Your task to perform on an android device: View the shopping cart on costco.com. Search for "usb-a" on costco.com, select the first entry, add it to the cart, then select checkout. Image 0: 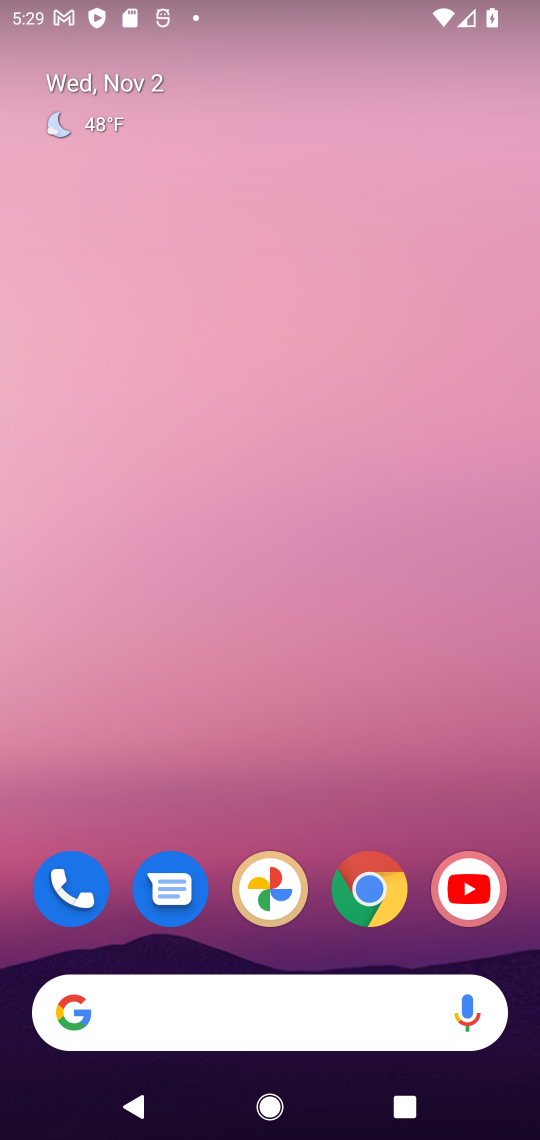
Step 0: click (372, 892)
Your task to perform on an android device: View the shopping cart on costco.com. Search for "usb-a" on costco.com, select the first entry, add it to the cart, then select checkout. Image 1: 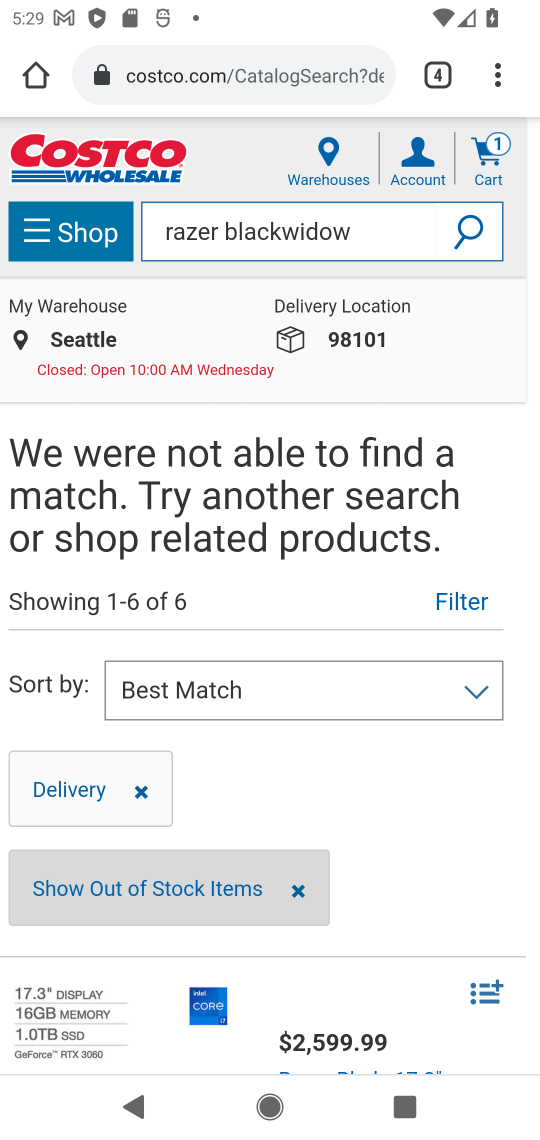
Step 1: click (483, 169)
Your task to perform on an android device: View the shopping cart on costco.com. Search for "usb-a" on costco.com, select the first entry, add it to the cart, then select checkout. Image 2: 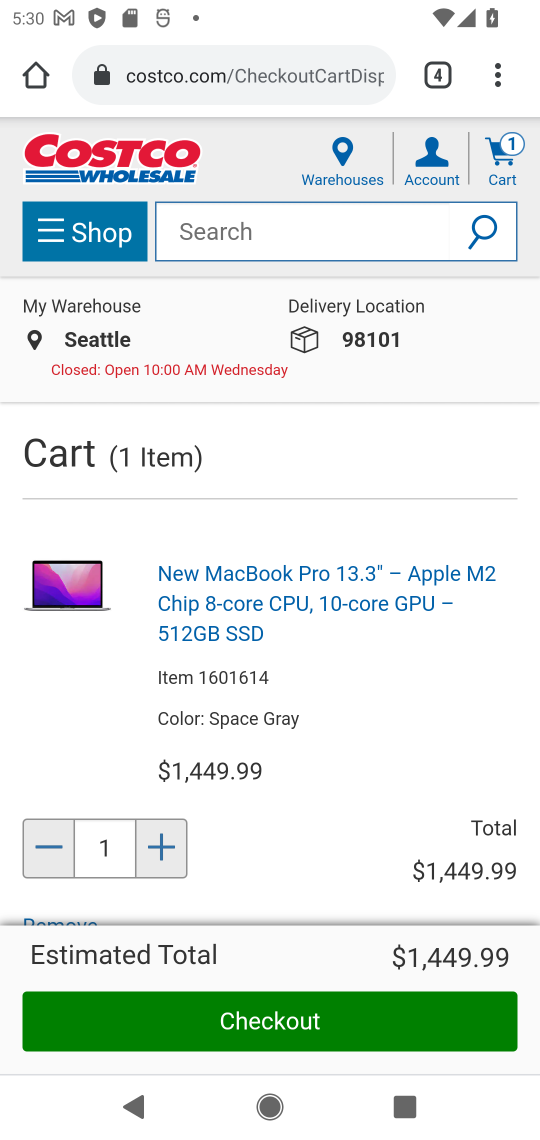
Step 2: click (278, 225)
Your task to perform on an android device: View the shopping cart on costco.com. Search for "usb-a" on costco.com, select the first entry, add it to the cart, then select checkout. Image 3: 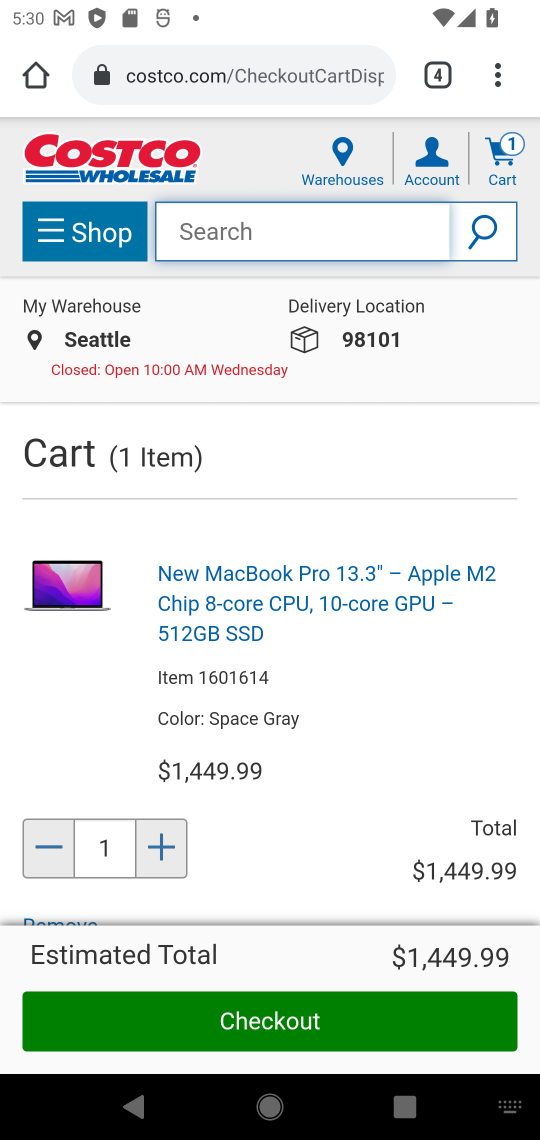
Step 3: type "usb-a"
Your task to perform on an android device: View the shopping cart on costco.com. Search for "usb-a" on costco.com, select the first entry, add it to the cart, then select checkout. Image 4: 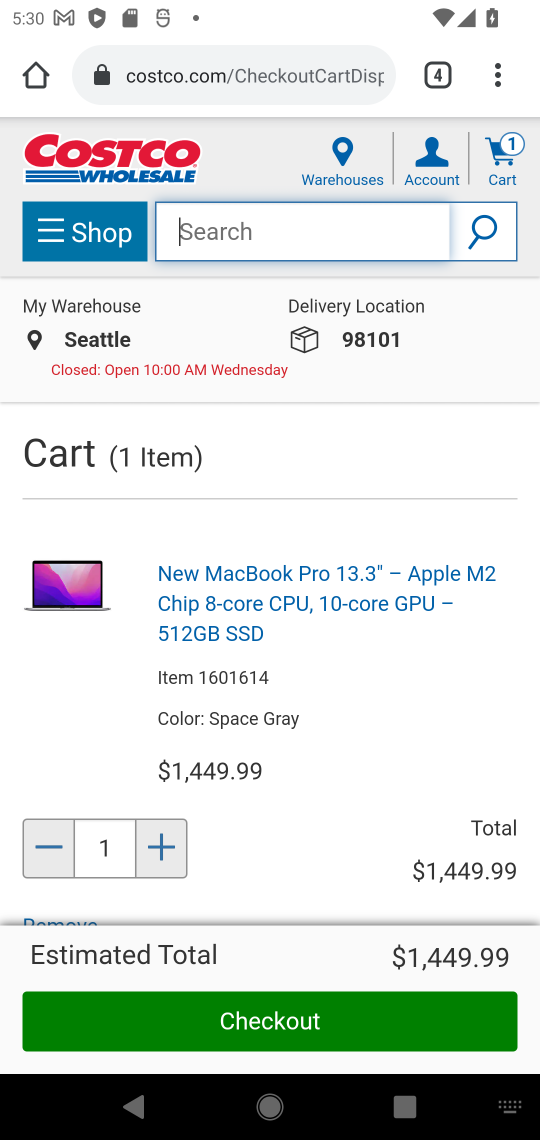
Step 4: press enter
Your task to perform on an android device: View the shopping cart on costco.com. Search for "usb-a" on costco.com, select the first entry, add it to the cart, then select checkout. Image 5: 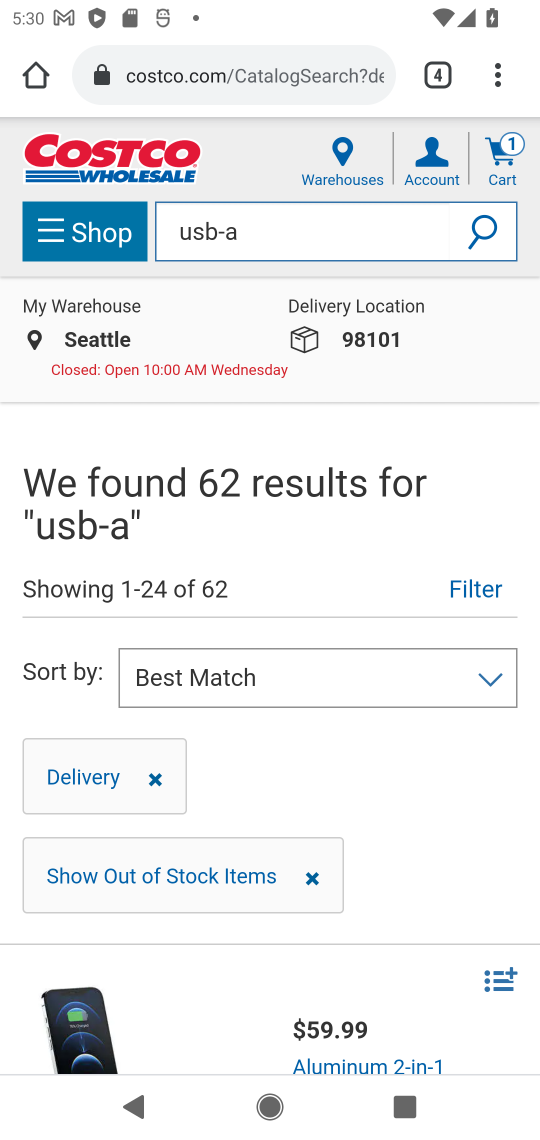
Step 5: drag from (302, 825) to (443, 335)
Your task to perform on an android device: View the shopping cart on costco.com. Search for "usb-a" on costco.com, select the first entry, add it to the cart, then select checkout. Image 6: 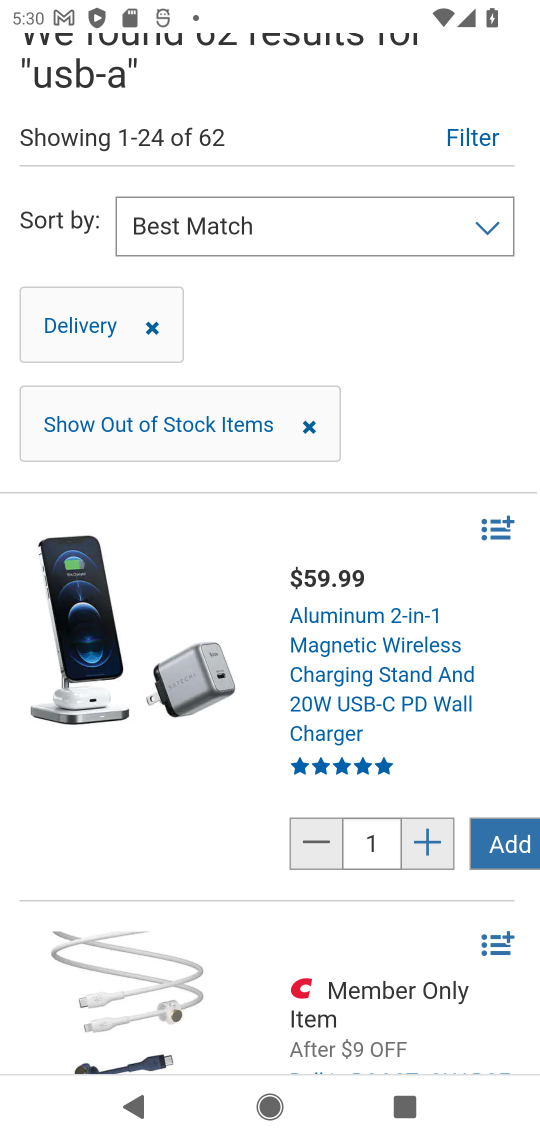
Step 6: drag from (401, 344) to (375, 232)
Your task to perform on an android device: View the shopping cart on costco.com. Search for "usb-a" on costco.com, select the first entry, add it to the cart, then select checkout. Image 7: 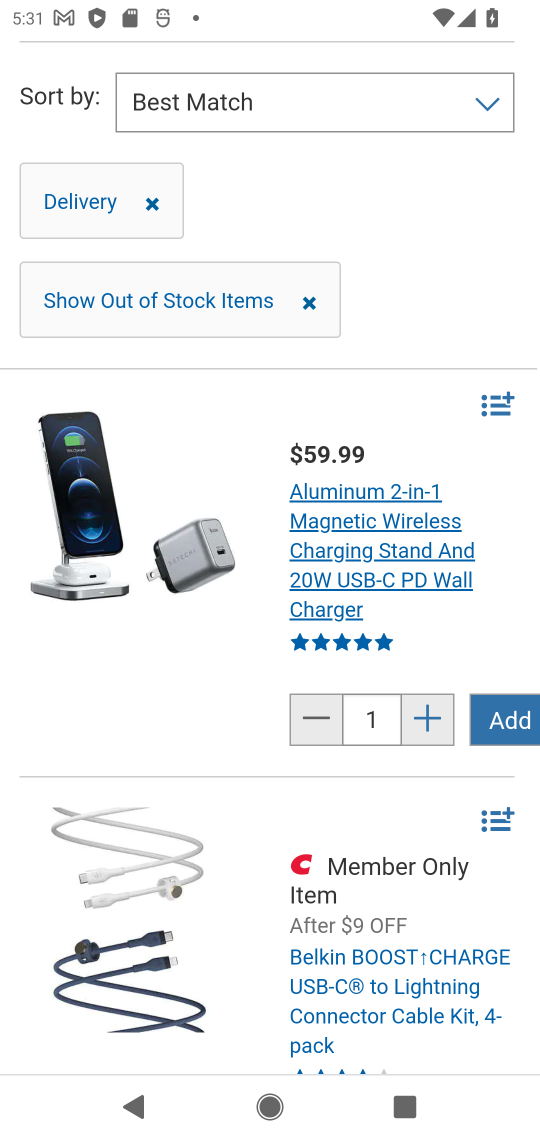
Step 7: click (510, 722)
Your task to perform on an android device: View the shopping cart on costco.com. Search for "usb-a" on costco.com, select the first entry, add it to the cart, then select checkout. Image 8: 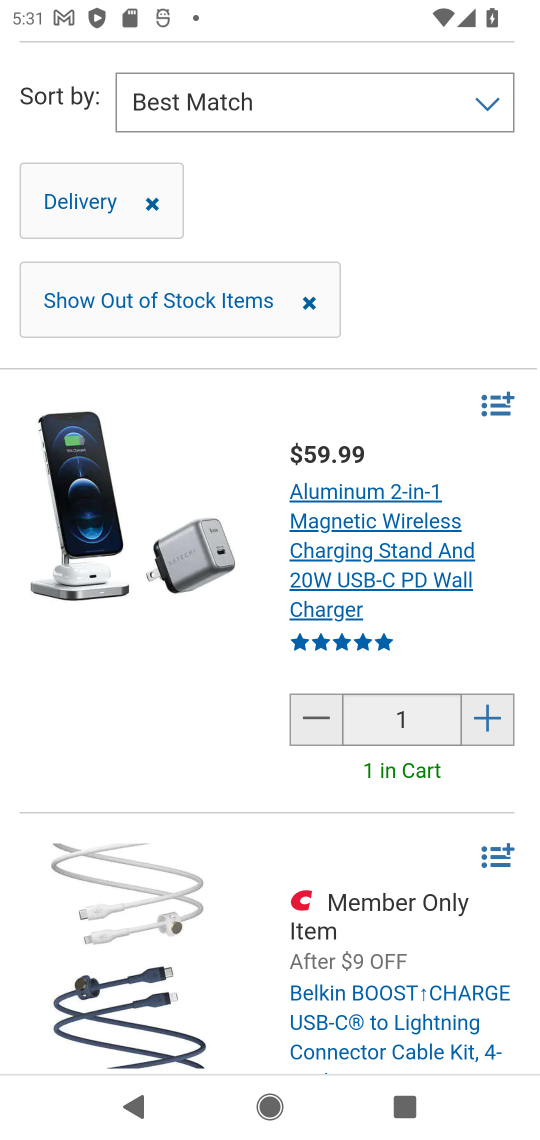
Step 8: drag from (365, 237) to (403, 778)
Your task to perform on an android device: View the shopping cart on costco.com. Search for "usb-a" on costco.com, select the first entry, add it to the cart, then select checkout. Image 9: 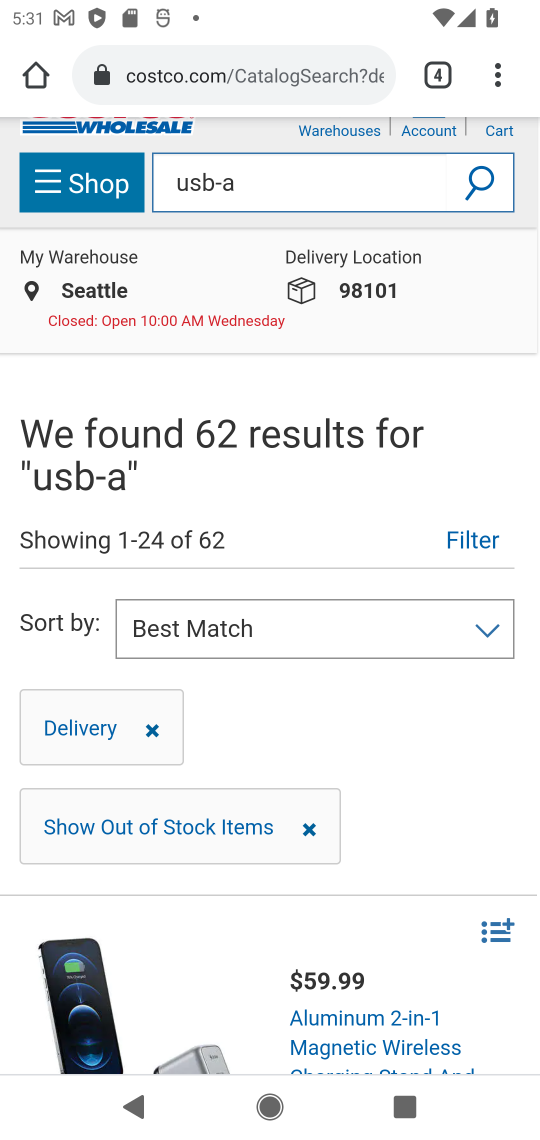
Step 9: drag from (403, 224) to (443, 557)
Your task to perform on an android device: View the shopping cart on costco.com. Search for "usb-a" on costco.com, select the first entry, add it to the cart, then select checkout. Image 10: 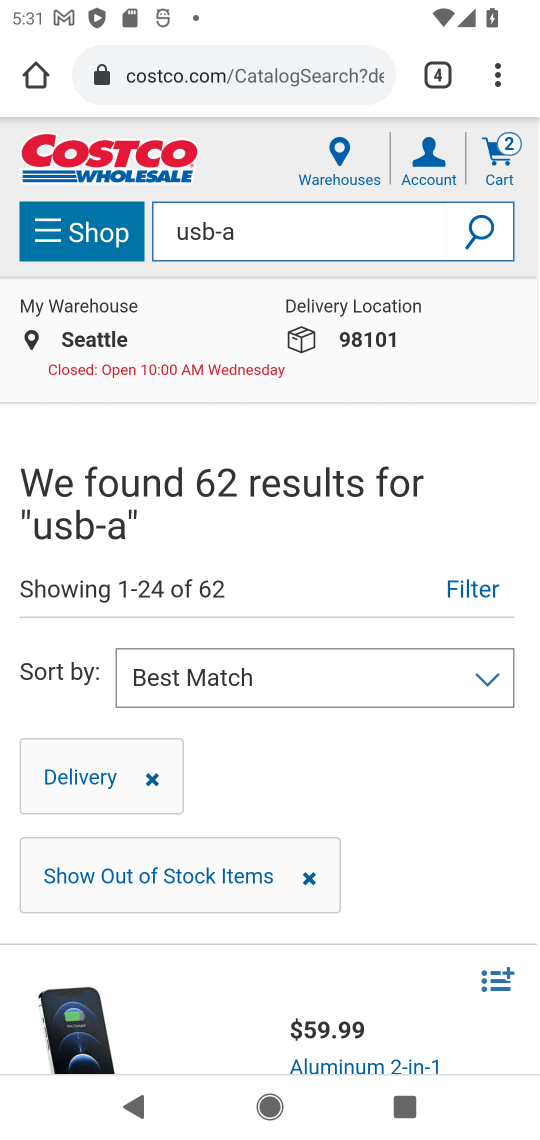
Step 10: click (490, 151)
Your task to perform on an android device: View the shopping cart on costco.com. Search for "usb-a" on costco.com, select the first entry, add it to the cart, then select checkout. Image 11: 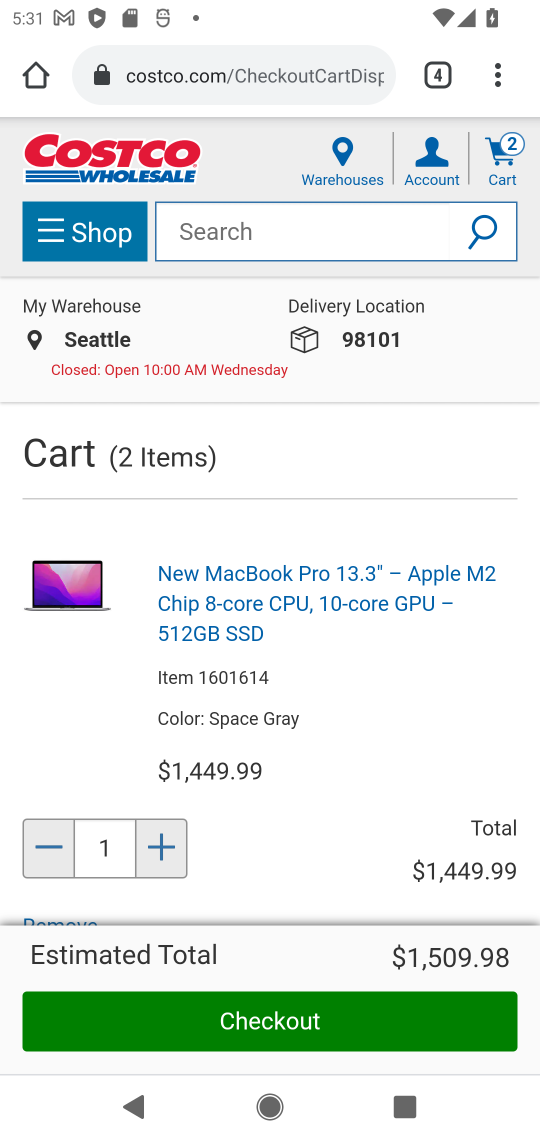
Step 11: drag from (319, 820) to (371, 513)
Your task to perform on an android device: View the shopping cart on costco.com. Search for "usb-a" on costco.com, select the first entry, add it to the cart, then select checkout. Image 12: 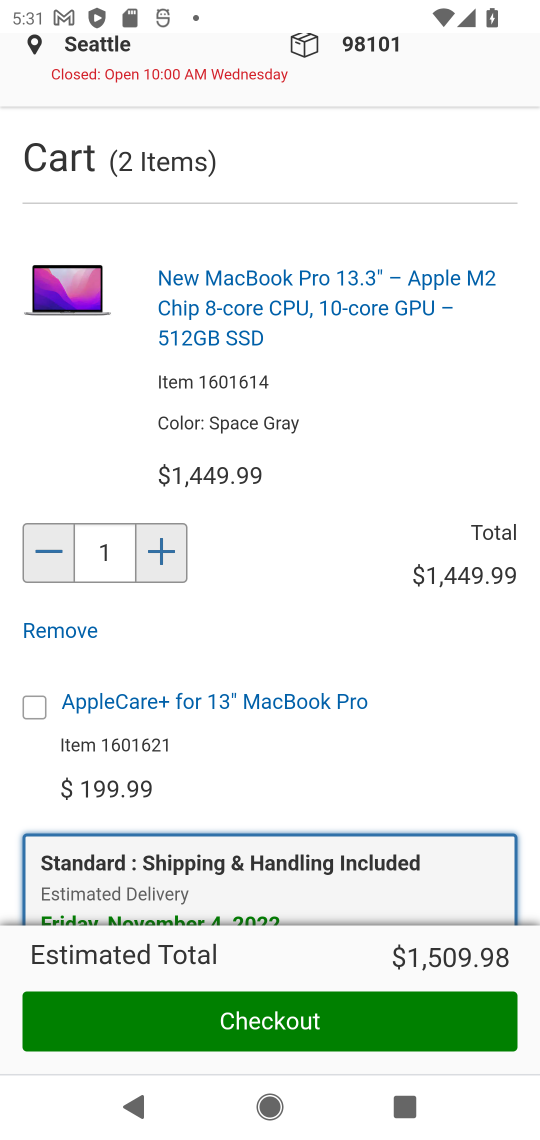
Step 12: click (48, 629)
Your task to perform on an android device: View the shopping cart on costco.com. Search for "usb-a" on costco.com, select the first entry, add it to the cart, then select checkout. Image 13: 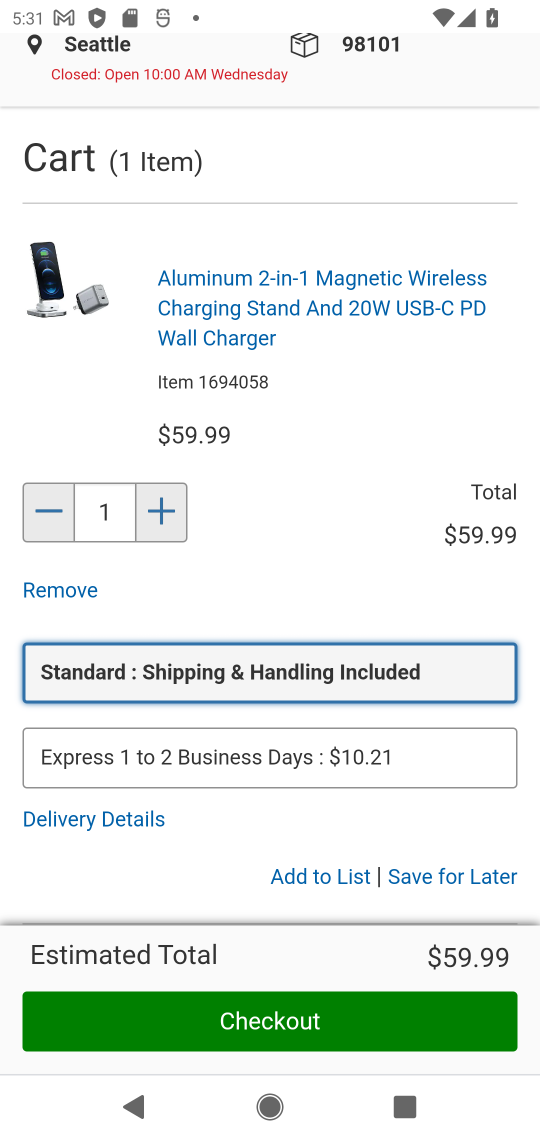
Step 13: task complete